Your task to perform on an android device: Go to wifi settings Image 0: 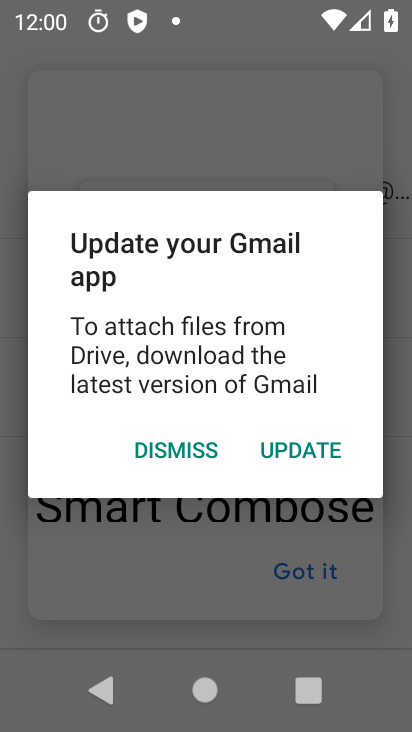
Step 0: task complete